Your task to perform on an android device: toggle javascript in the chrome app Image 0: 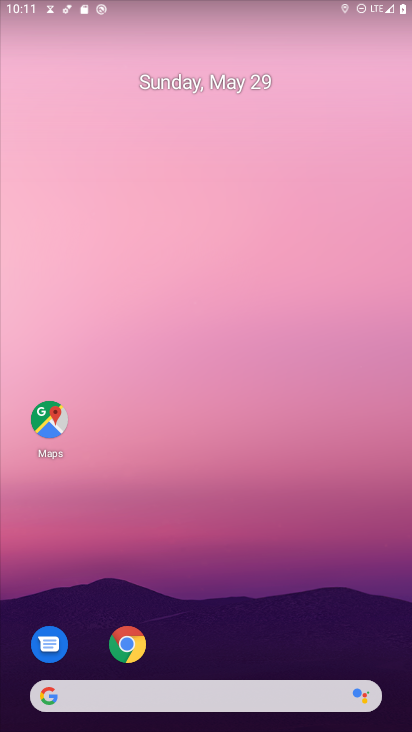
Step 0: click (142, 646)
Your task to perform on an android device: toggle javascript in the chrome app Image 1: 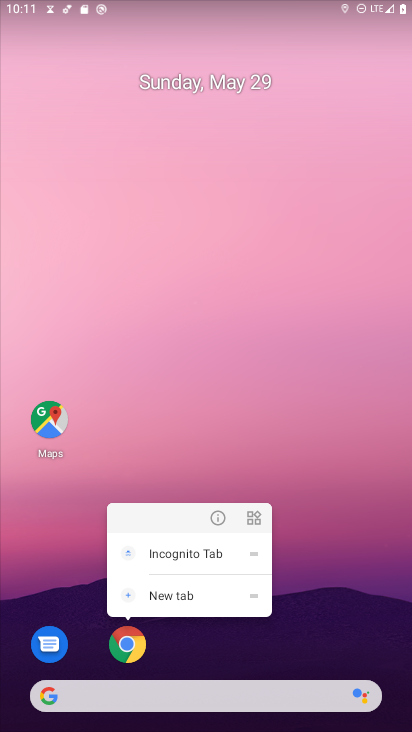
Step 1: click (137, 650)
Your task to perform on an android device: toggle javascript in the chrome app Image 2: 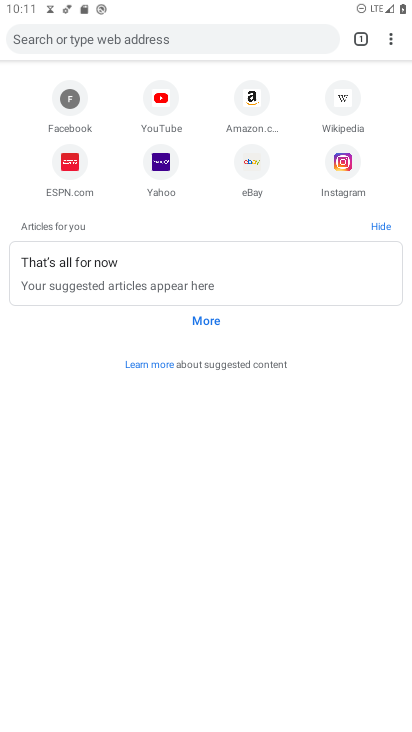
Step 2: click (392, 43)
Your task to perform on an android device: toggle javascript in the chrome app Image 3: 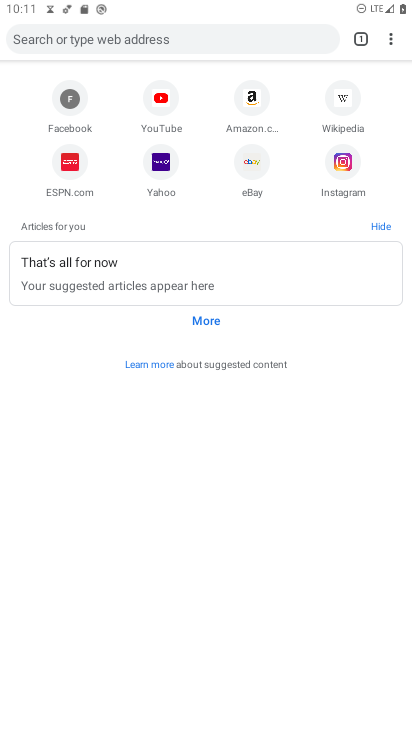
Step 3: click (394, 35)
Your task to perform on an android device: toggle javascript in the chrome app Image 4: 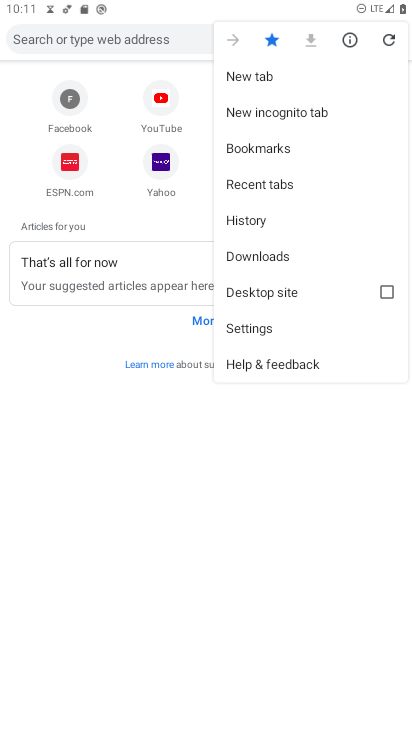
Step 4: click (266, 327)
Your task to perform on an android device: toggle javascript in the chrome app Image 5: 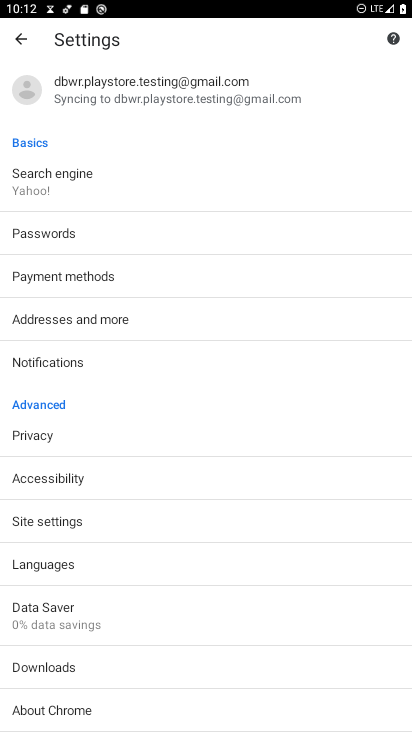
Step 5: click (58, 523)
Your task to perform on an android device: toggle javascript in the chrome app Image 6: 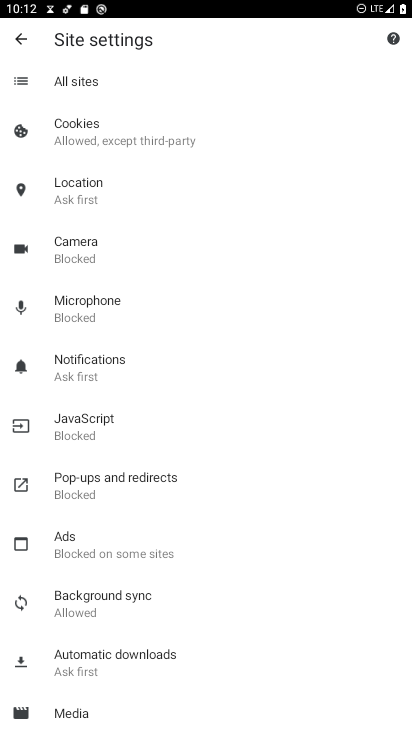
Step 6: click (126, 429)
Your task to perform on an android device: toggle javascript in the chrome app Image 7: 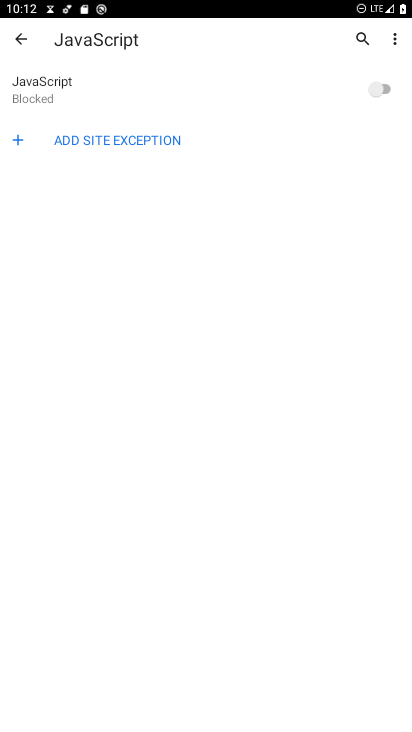
Step 7: click (381, 90)
Your task to perform on an android device: toggle javascript in the chrome app Image 8: 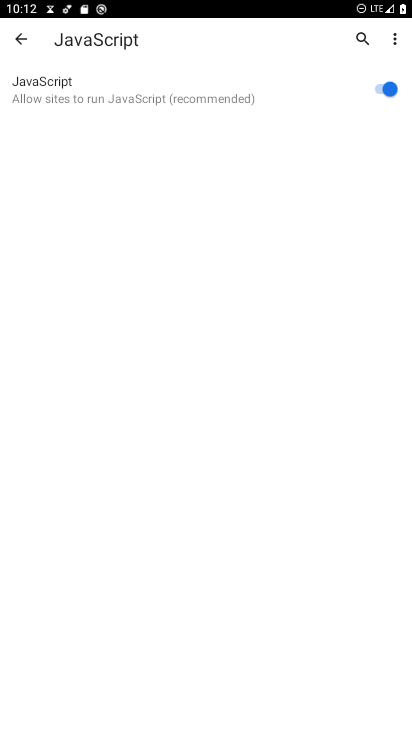
Step 8: task complete